Your task to perform on an android device: Go to Google Image 0: 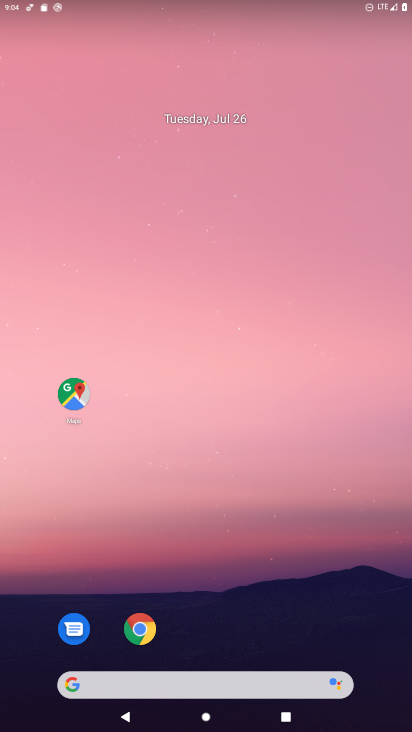
Step 0: press home button
Your task to perform on an android device: Go to Google Image 1: 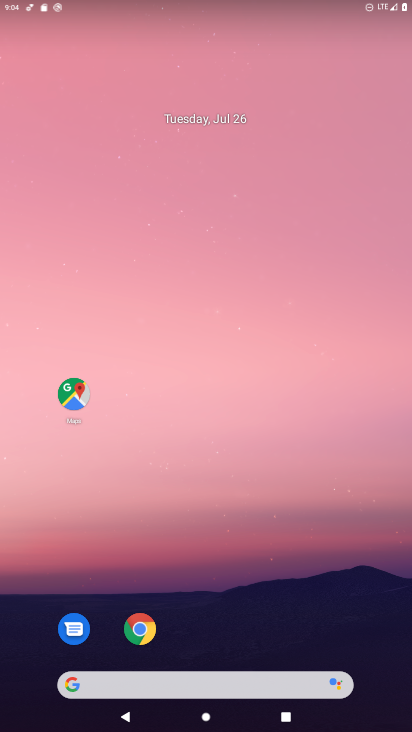
Step 1: drag from (225, 595) to (187, 172)
Your task to perform on an android device: Go to Google Image 2: 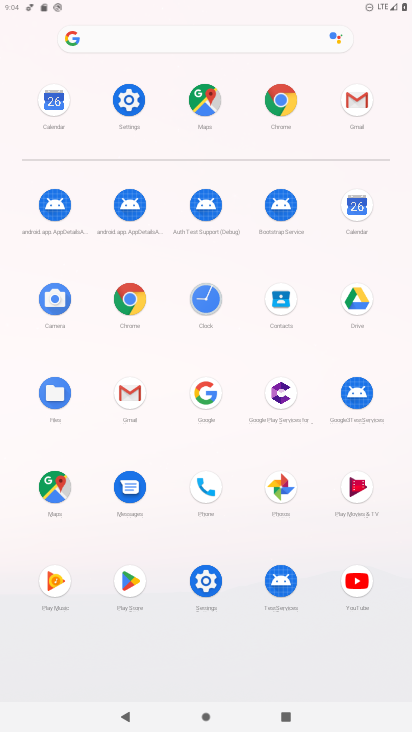
Step 2: click (217, 403)
Your task to perform on an android device: Go to Google Image 3: 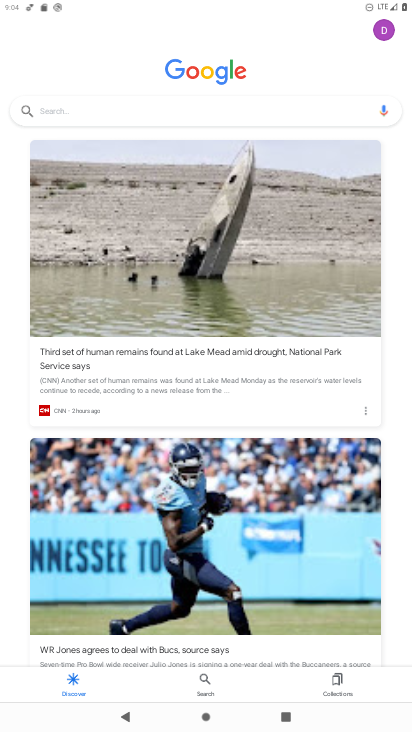
Step 3: task complete